Your task to perform on an android device: How old is the earth? Image 0: 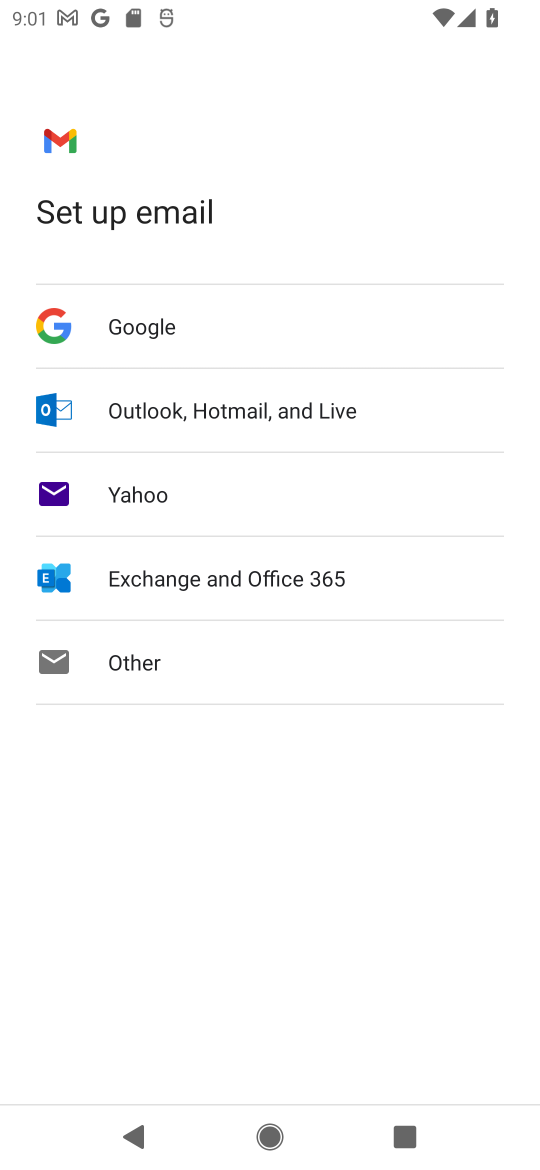
Step 0: press home button
Your task to perform on an android device: How old is the earth? Image 1: 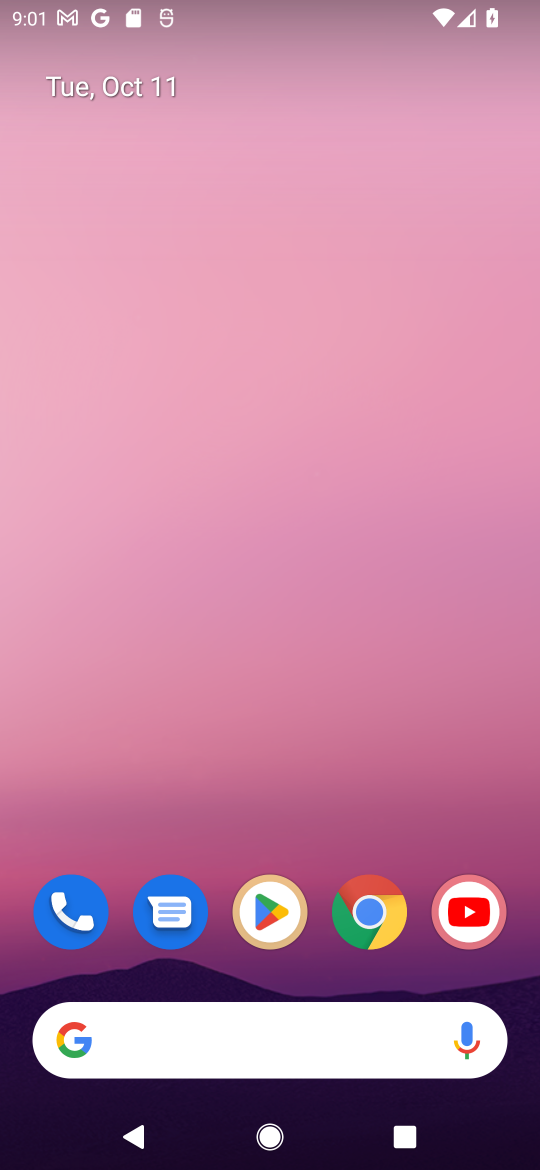
Step 1: click (366, 913)
Your task to perform on an android device: How old is the earth? Image 2: 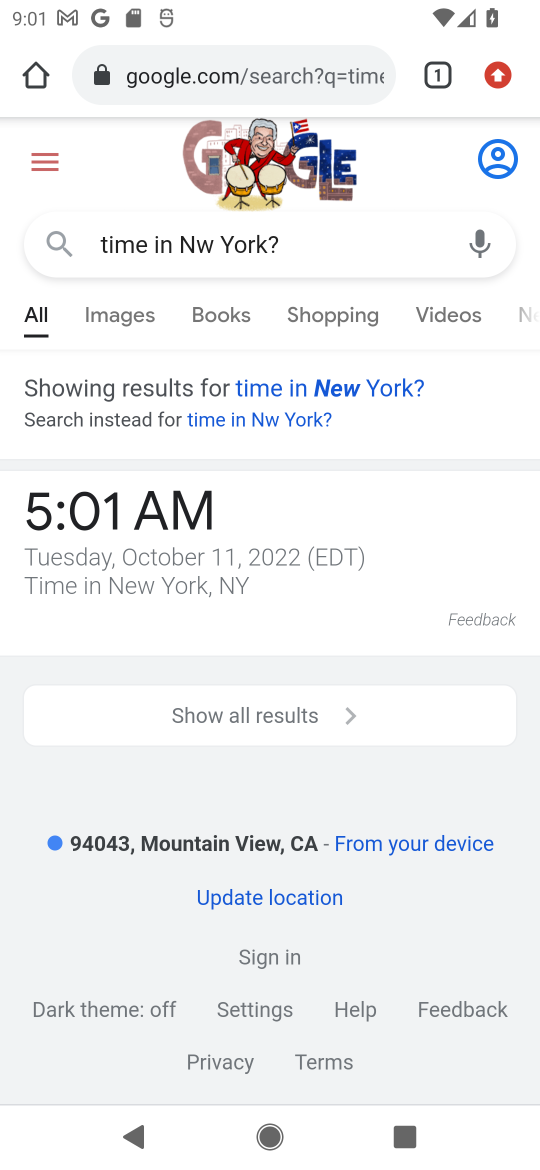
Step 2: click (252, 52)
Your task to perform on an android device: How old is the earth? Image 3: 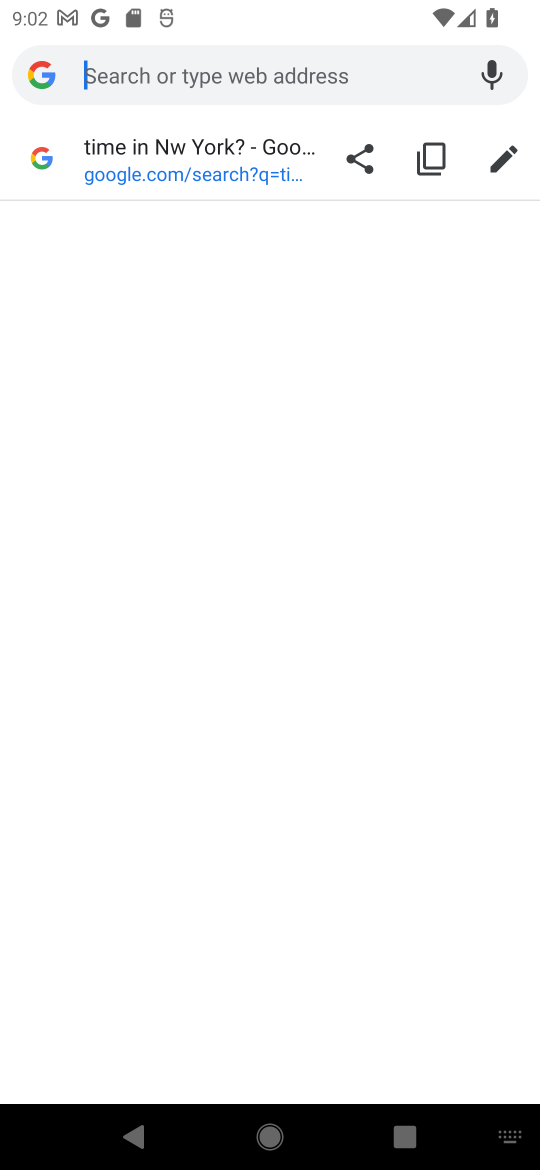
Step 3: type "how old is the earth?"
Your task to perform on an android device: How old is the earth? Image 4: 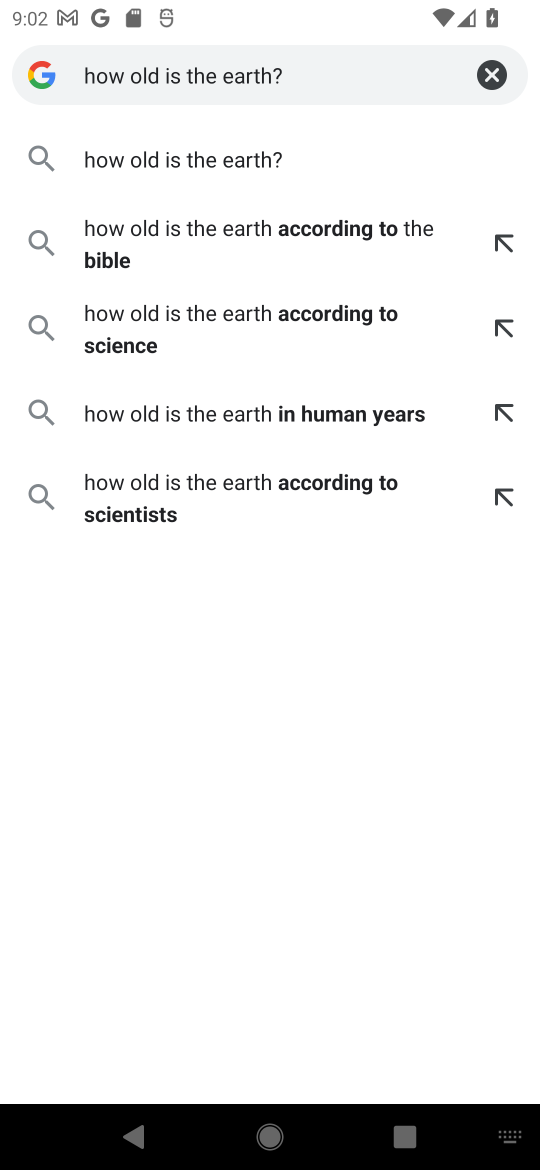
Step 4: click (137, 158)
Your task to perform on an android device: How old is the earth? Image 5: 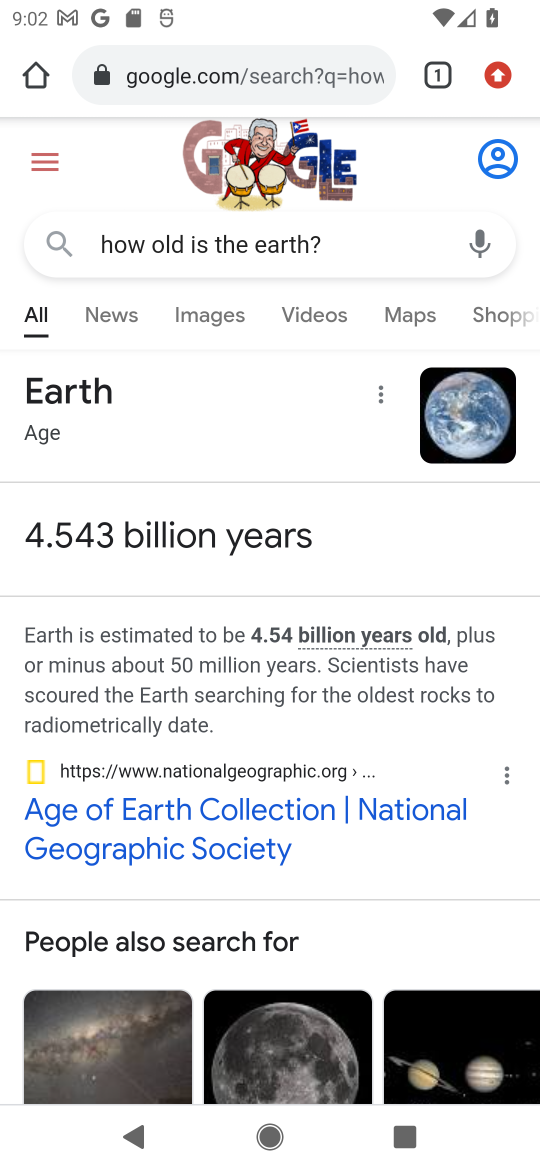
Step 5: task complete